Your task to perform on an android device: Open Google Chrome Image 0: 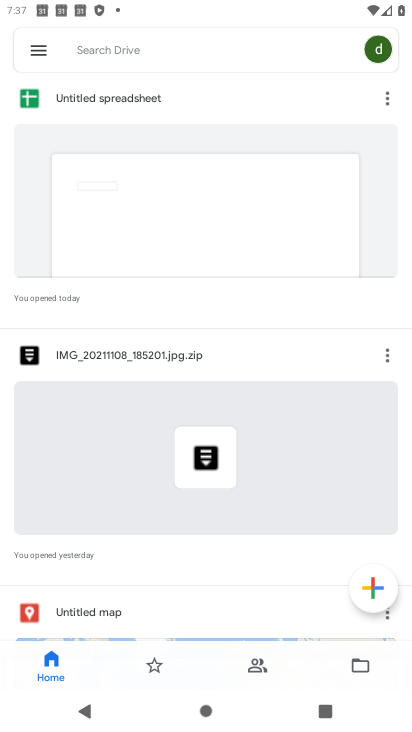
Step 0: press home button
Your task to perform on an android device: Open Google Chrome Image 1: 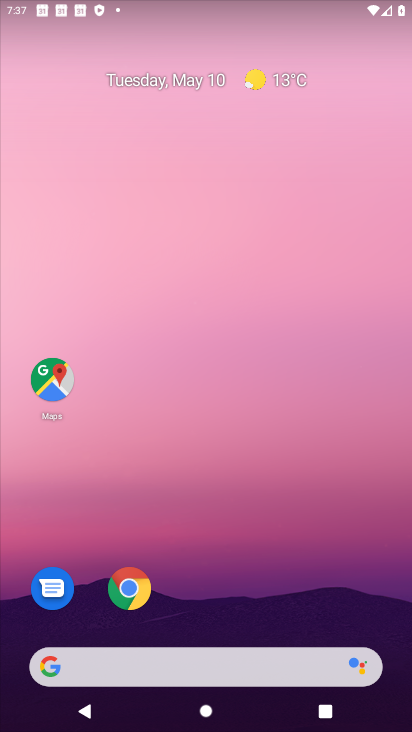
Step 1: click (131, 590)
Your task to perform on an android device: Open Google Chrome Image 2: 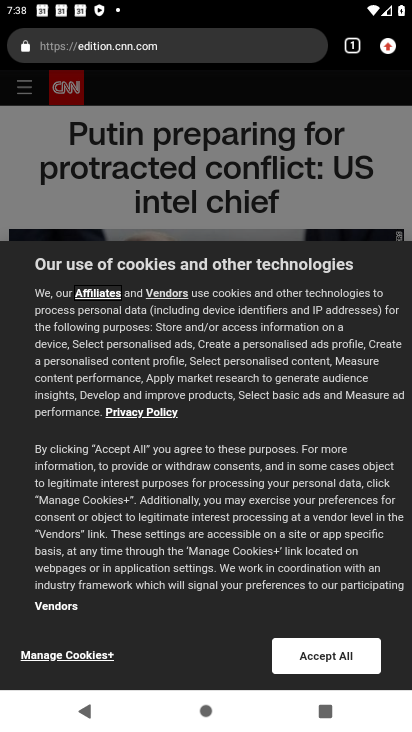
Step 2: task complete